Your task to perform on an android device: What's the weather going to be this weekend? Image 0: 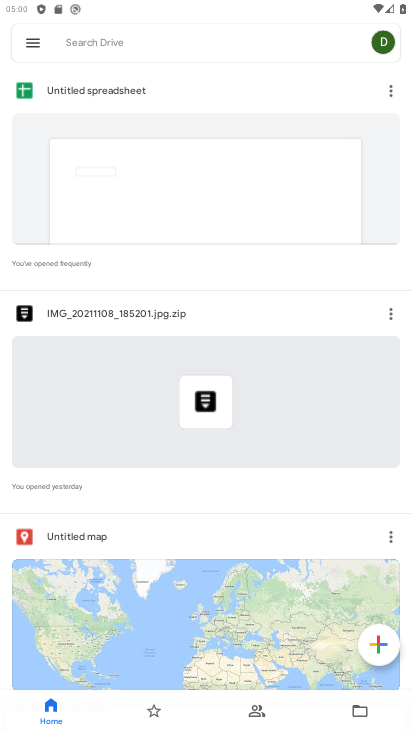
Step 0: press home button
Your task to perform on an android device: What's the weather going to be this weekend? Image 1: 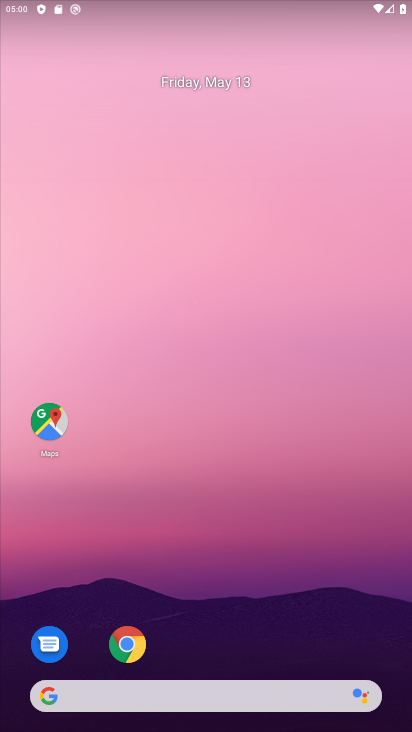
Step 1: click (119, 689)
Your task to perform on an android device: What's the weather going to be this weekend? Image 2: 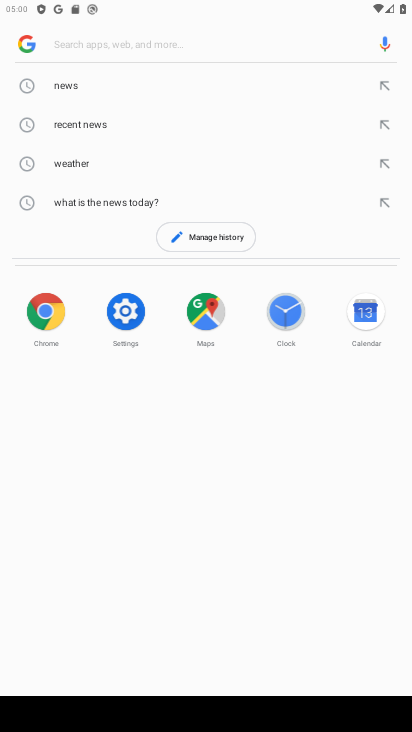
Step 2: click (77, 161)
Your task to perform on an android device: What's the weather going to be this weekend? Image 3: 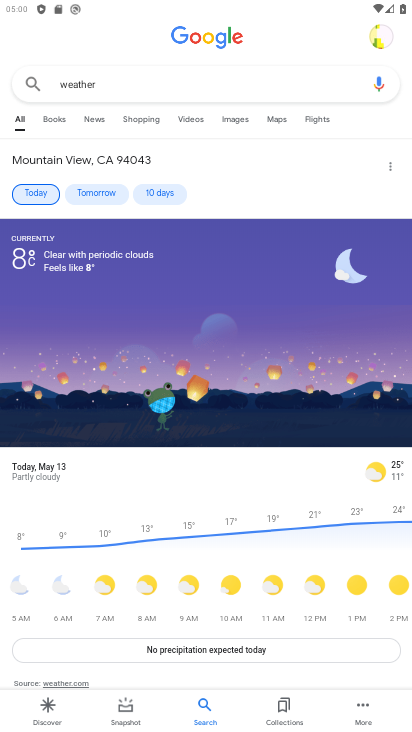
Step 3: click (138, 193)
Your task to perform on an android device: What's the weather going to be this weekend? Image 4: 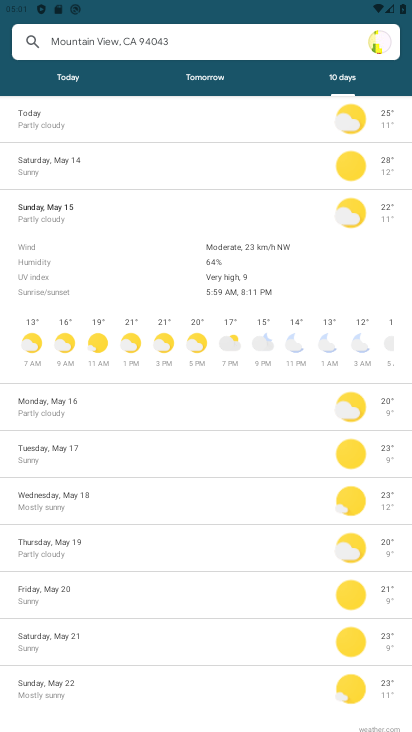
Step 4: task complete